Your task to perform on an android device: Go to accessibility settings Image 0: 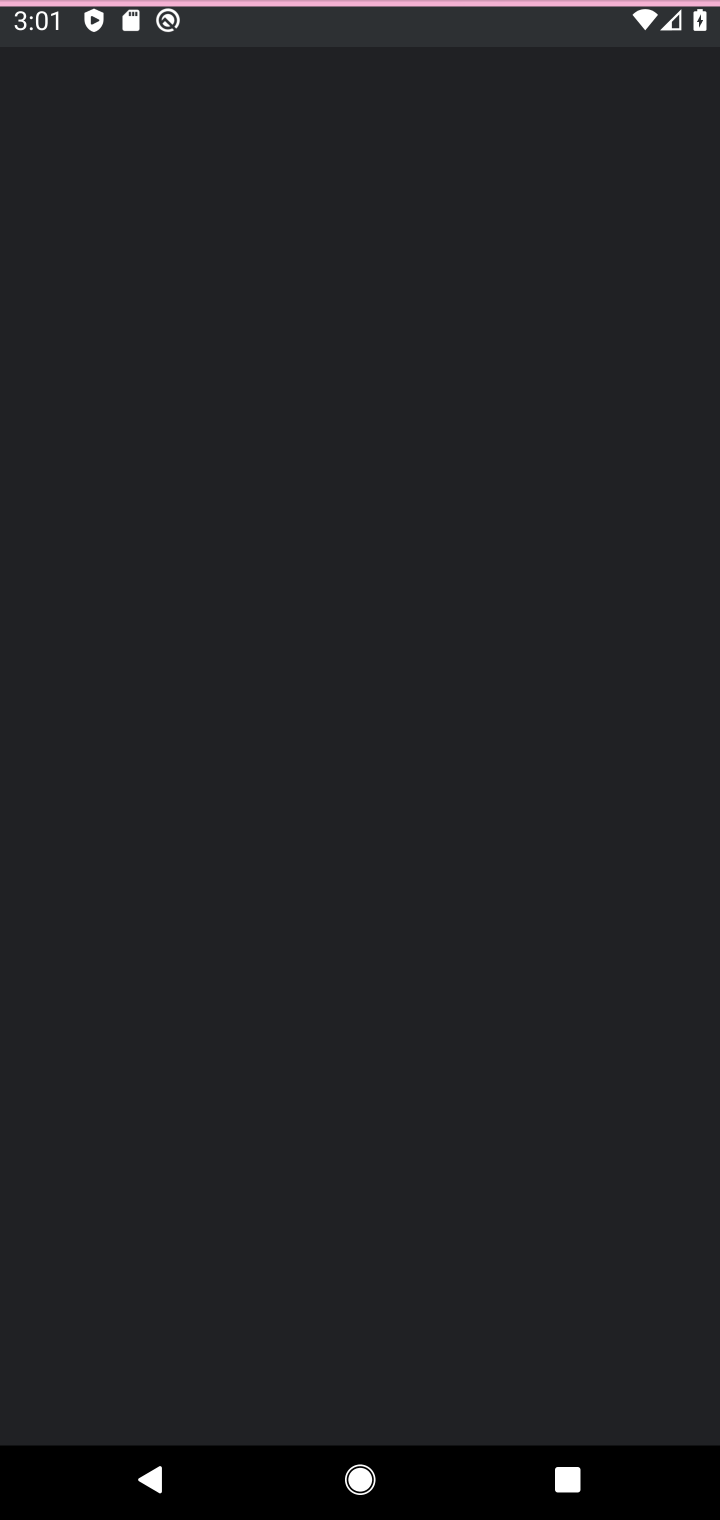
Step 0: press home button
Your task to perform on an android device: Go to accessibility settings Image 1: 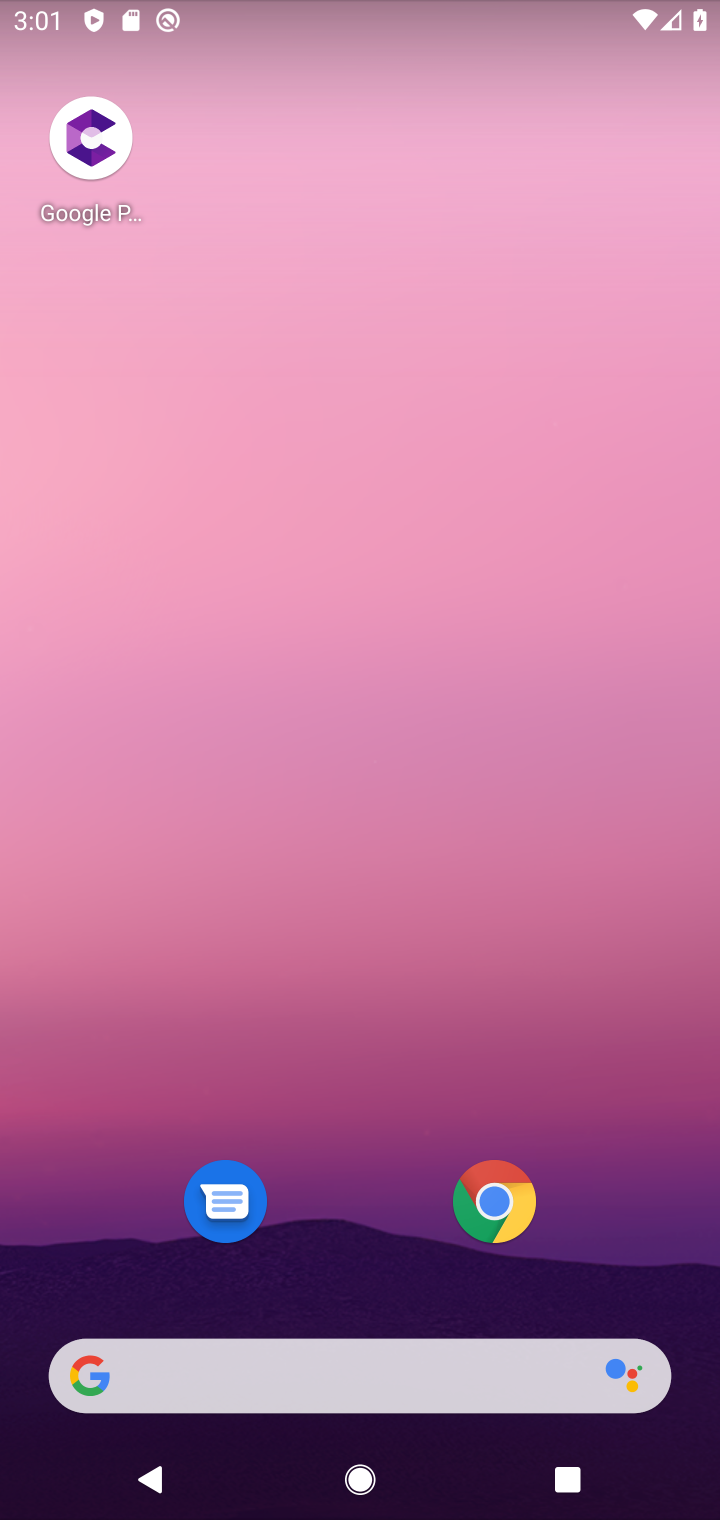
Step 1: drag from (318, 603) to (298, 13)
Your task to perform on an android device: Go to accessibility settings Image 2: 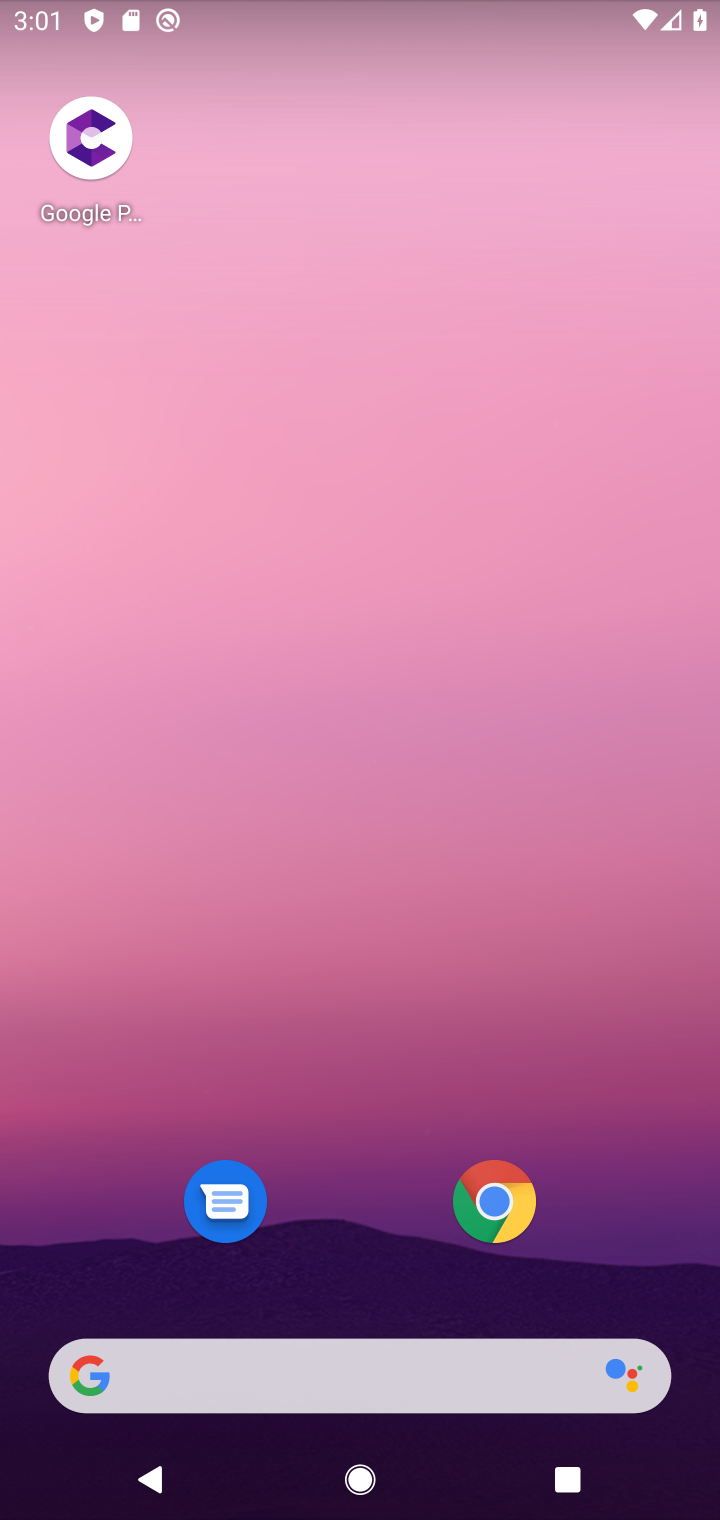
Step 2: drag from (352, 1284) to (537, 19)
Your task to perform on an android device: Go to accessibility settings Image 3: 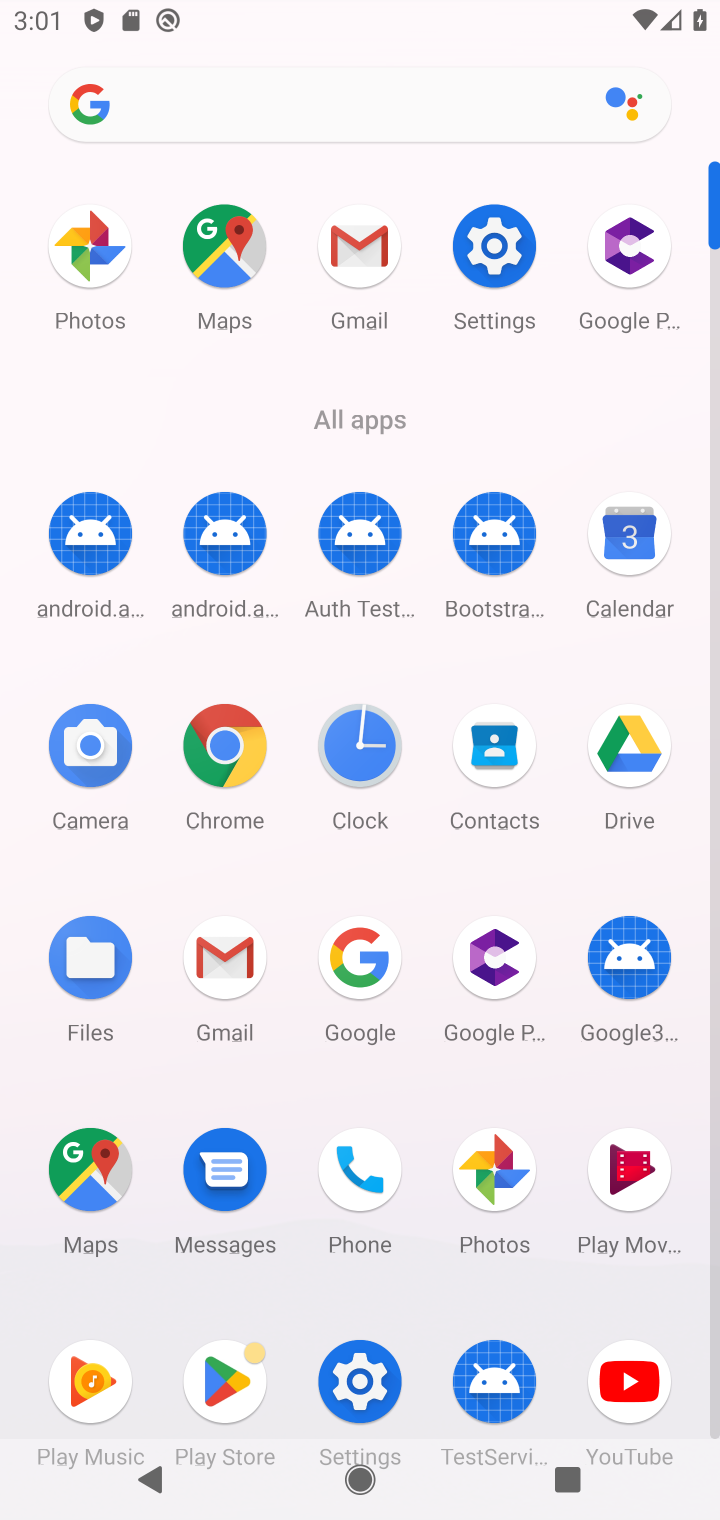
Step 3: click (486, 267)
Your task to perform on an android device: Go to accessibility settings Image 4: 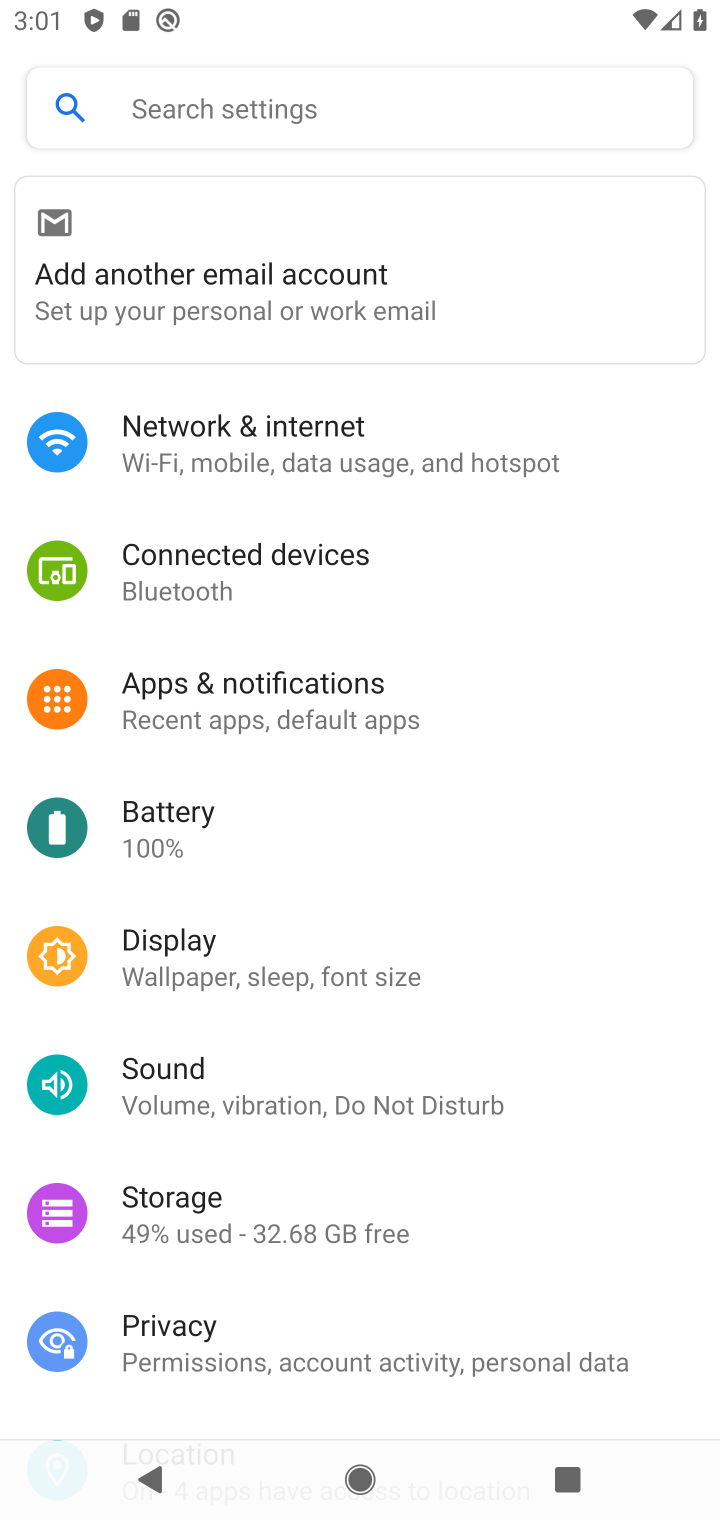
Step 4: drag from (268, 1125) to (315, 77)
Your task to perform on an android device: Go to accessibility settings Image 5: 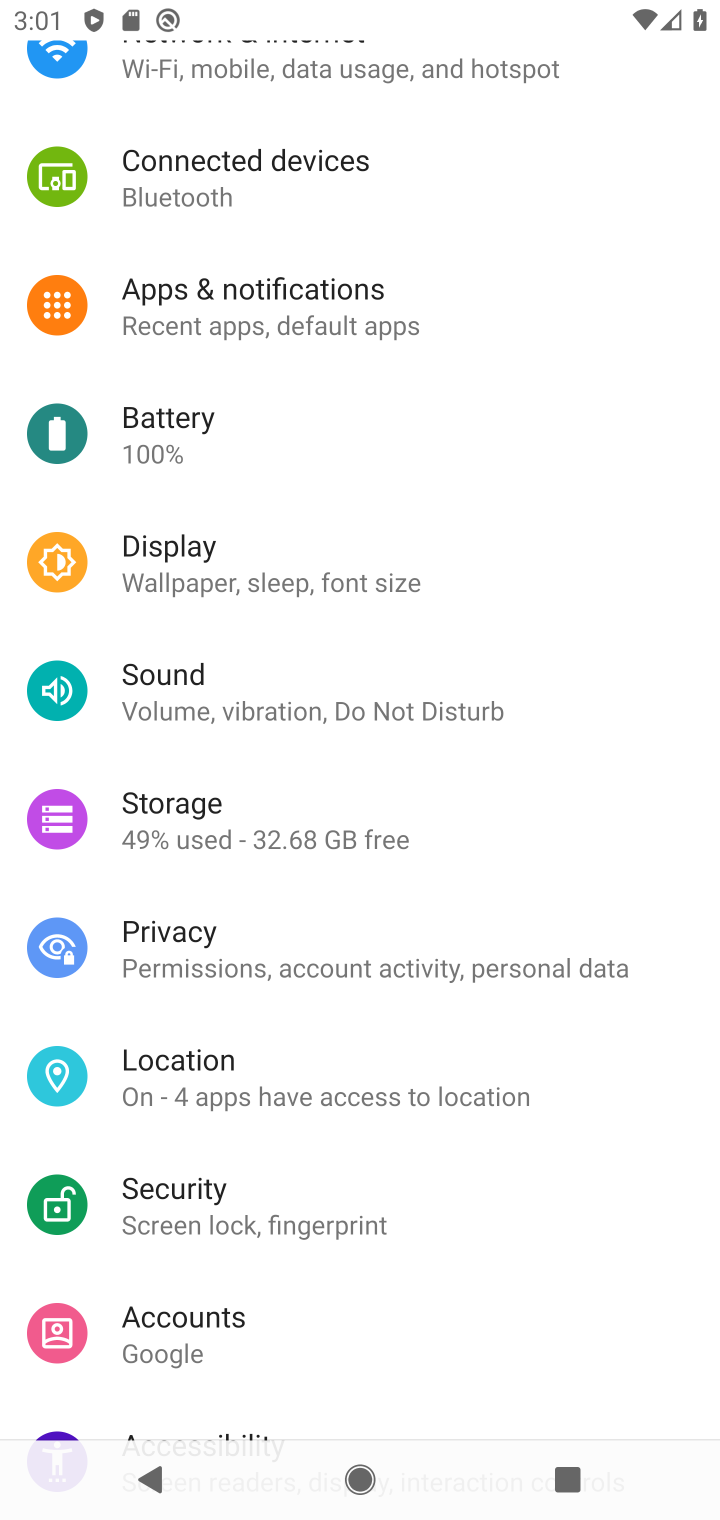
Step 5: drag from (237, 1139) to (164, 320)
Your task to perform on an android device: Go to accessibility settings Image 6: 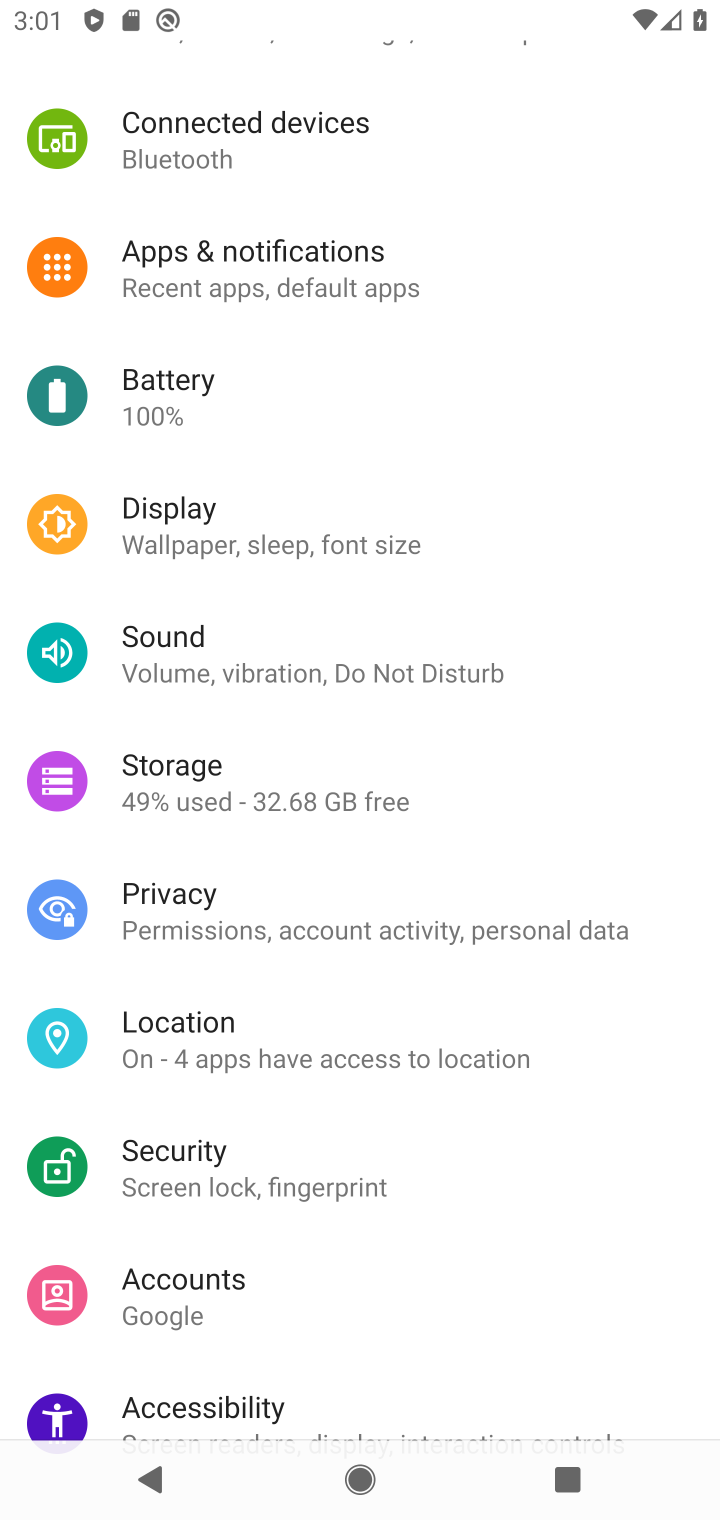
Step 6: click (173, 1387)
Your task to perform on an android device: Go to accessibility settings Image 7: 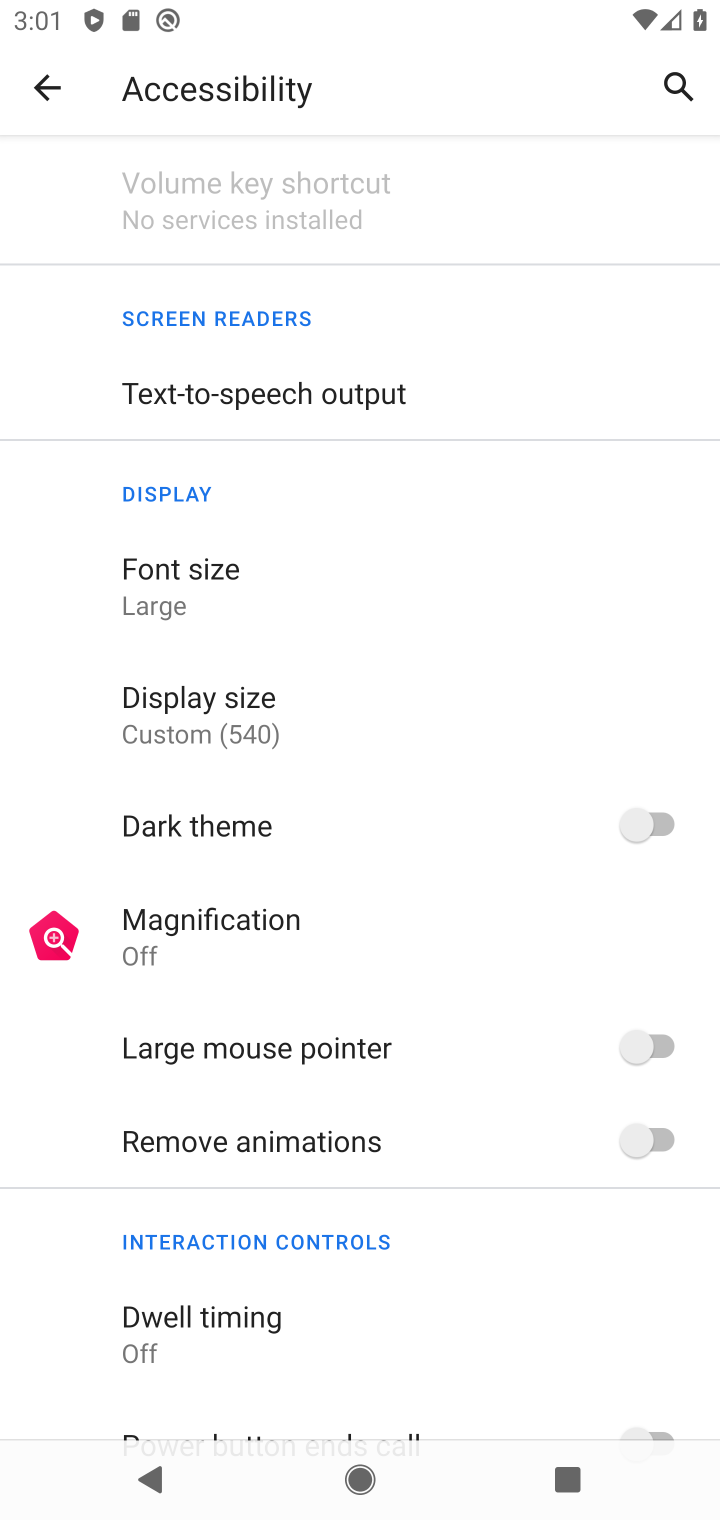
Step 7: task complete